Your task to perform on an android device: empty trash in the gmail app Image 0: 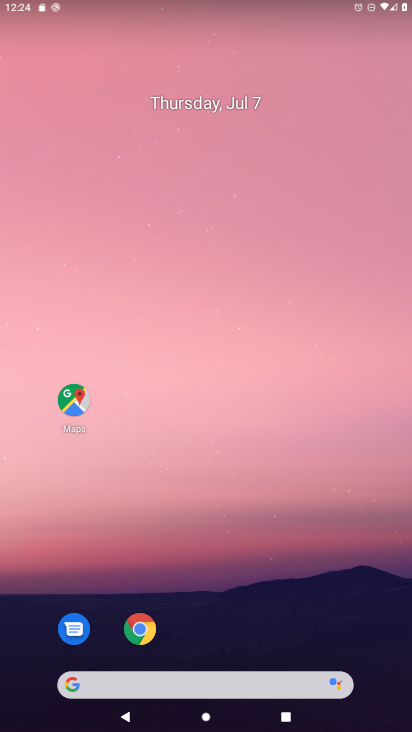
Step 0: drag from (205, 618) to (189, 96)
Your task to perform on an android device: empty trash in the gmail app Image 1: 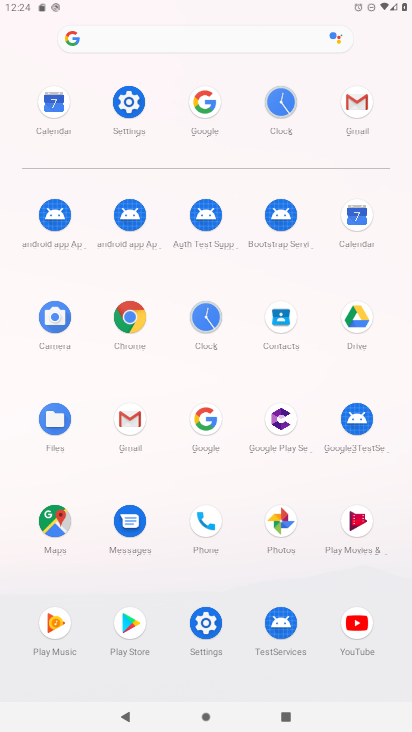
Step 1: click (361, 120)
Your task to perform on an android device: empty trash in the gmail app Image 2: 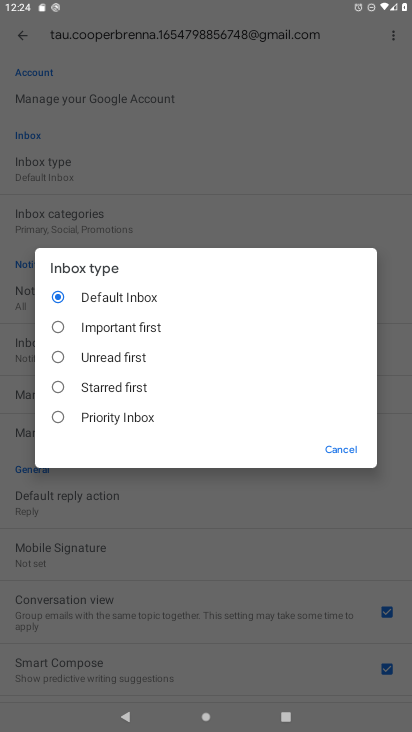
Step 2: click (152, 177)
Your task to perform on an android device: empty trash in the gmail app Image 3: 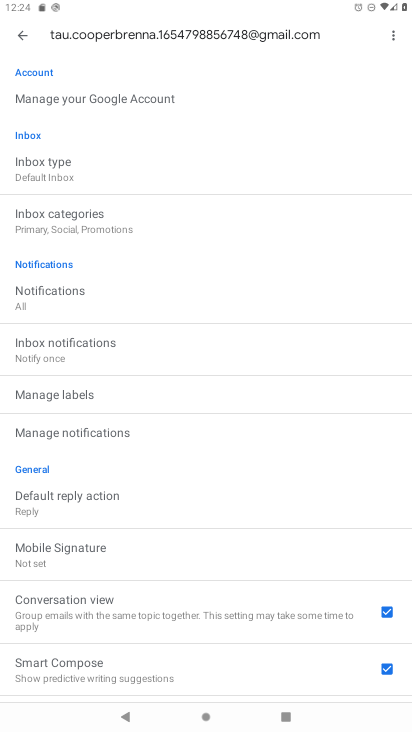
Step 3: click (28, 30)
Your task to perform on an android device: empty trash in the gmail app Image 4: 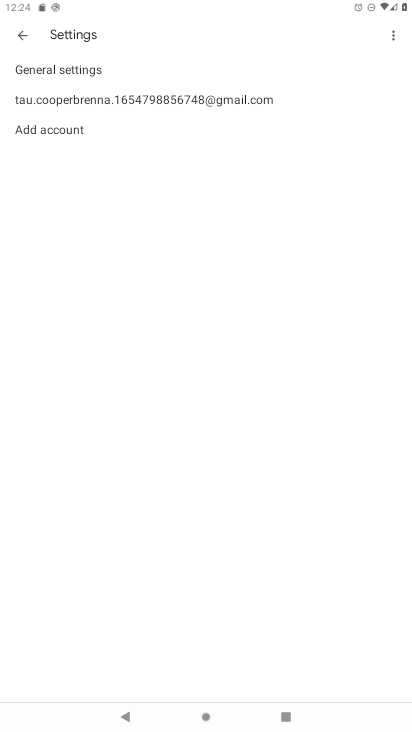
Step 4: click (24, 37)
Your task to perform on an android device: empty trash in the gmail app Image 5: 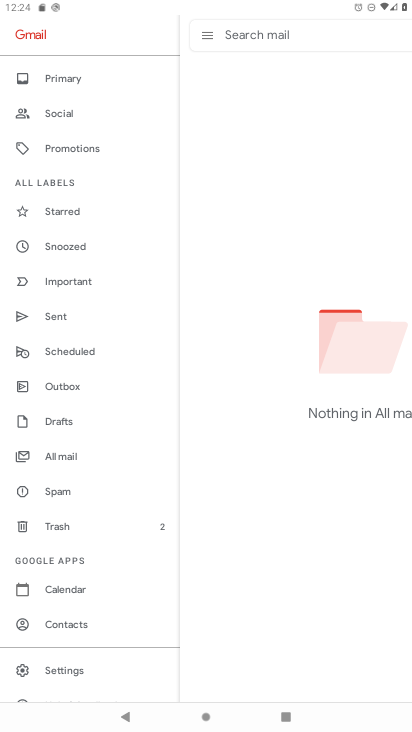
Step 5: click (76, 525)
Your task to perform on an android device: empty trash in the gmail app Image 6: 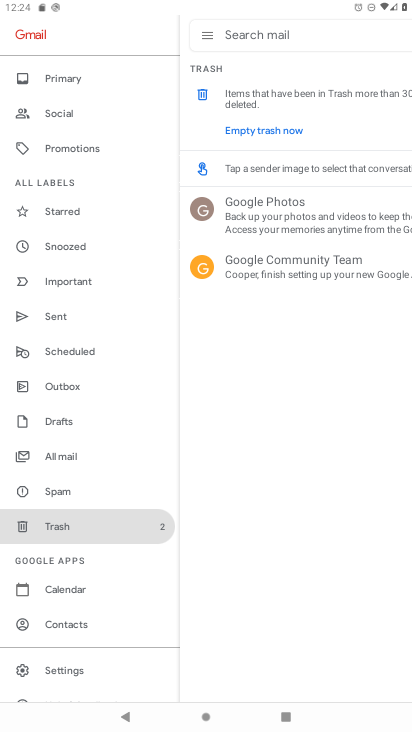
Step 6: click (261, 128)
Your task to perform on an android device: empty trash in the gmail app Image 7: 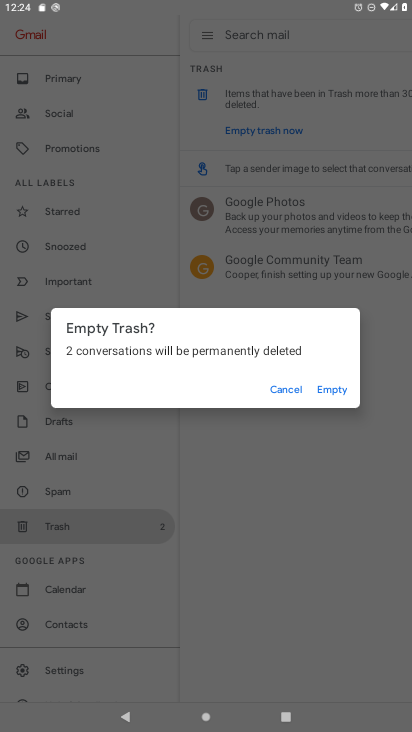
Step 7: click (327, 387)
Your task to perform on an android device: empty trash in the gmail app Image 8: 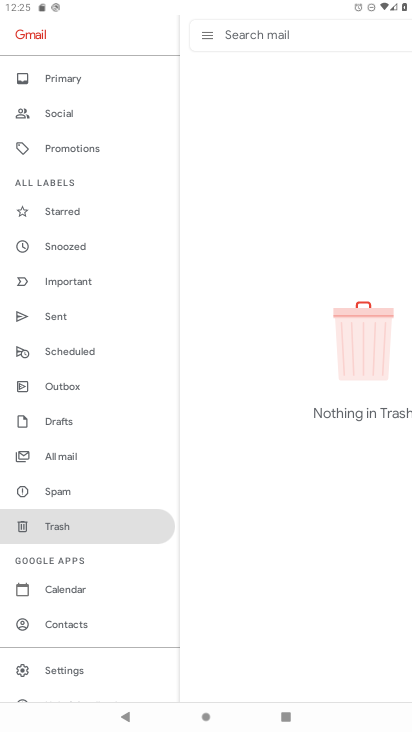
Step 8: task complete